Your task to perform on an android device: Go to notification settings Image 0: 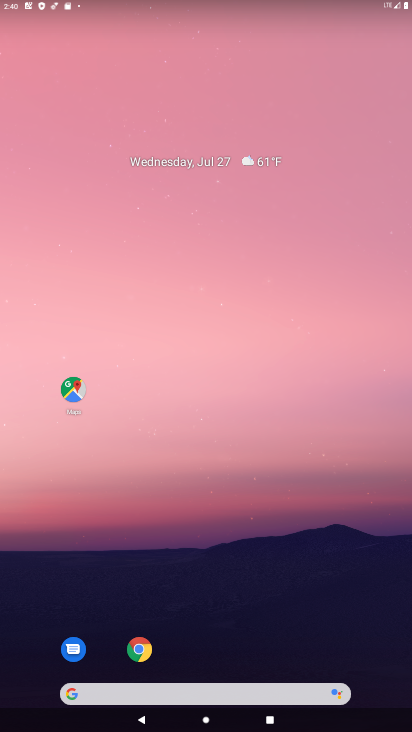
Step 0: drag from (188, 639) to (190, 90)
Your task to perform on an android device: Go to notification settings Image 1: 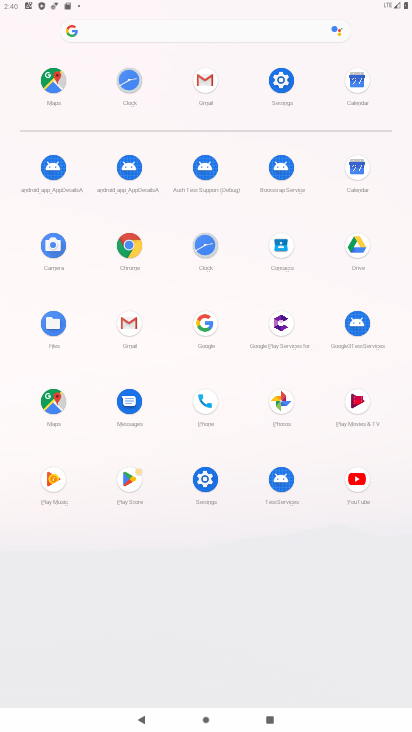
Step 1: click (283, 85)
Your task to perform on an android device: Go to notification settings Image 2: 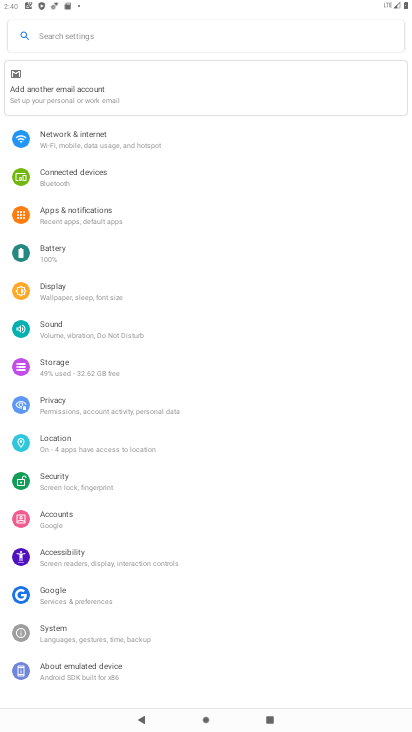
Step 2: click (94, 216)
Your task to perform on an android device: Go to notification settings Image 3: 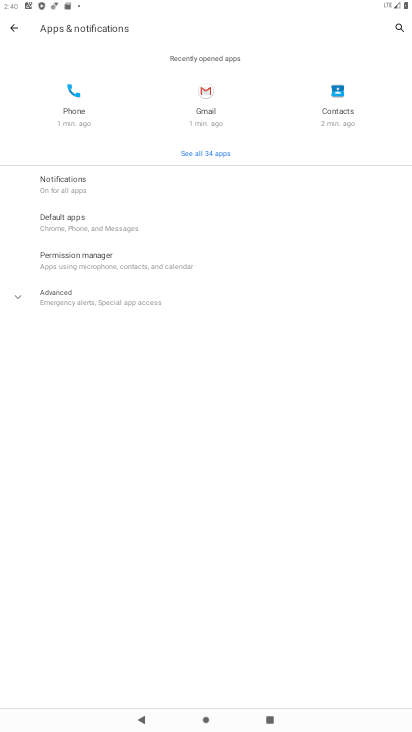
Step 3: click (63, 189)
Your task to perform on an android device: Go to notification settings Image 4: 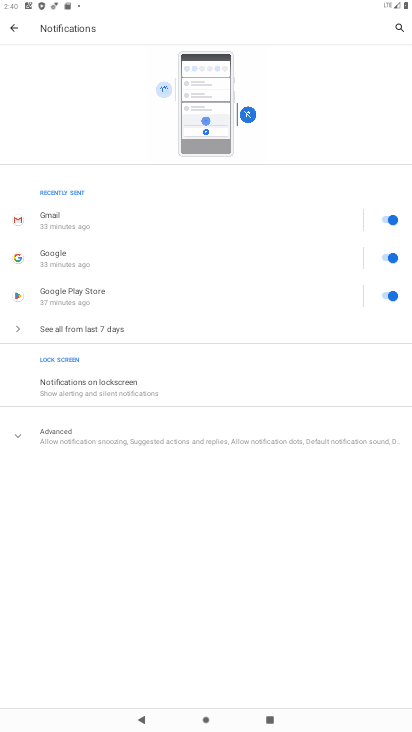
Step 4: task complete